Your task to perform on an android device: Open location settings Image 0: 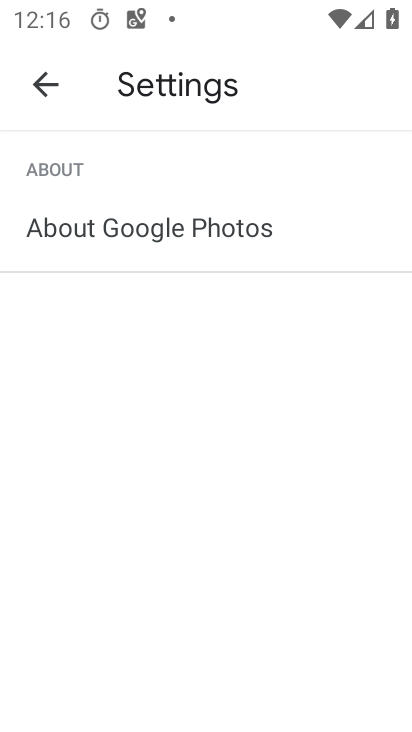
Step 0: press home button
Your task to perform on an android device: Open location settings Image 1: 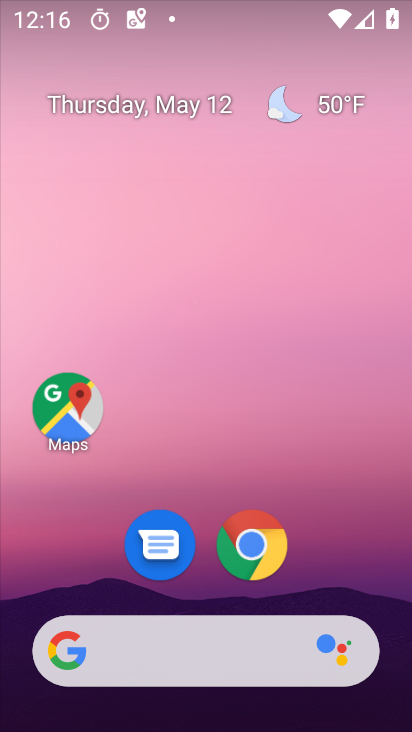
Step 1: drag from (216, 647) to (149, 106)
Your task to perform on an android device: Open location settings Image 2: 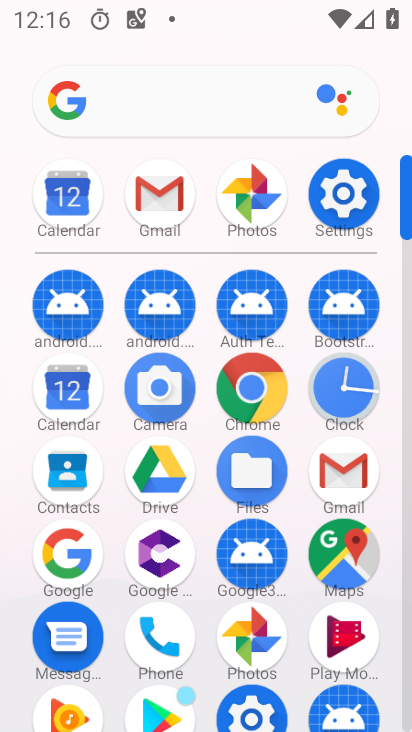
Step 2: click (322, 185)
Your task to perform on an android device: Open location settings Image 3: 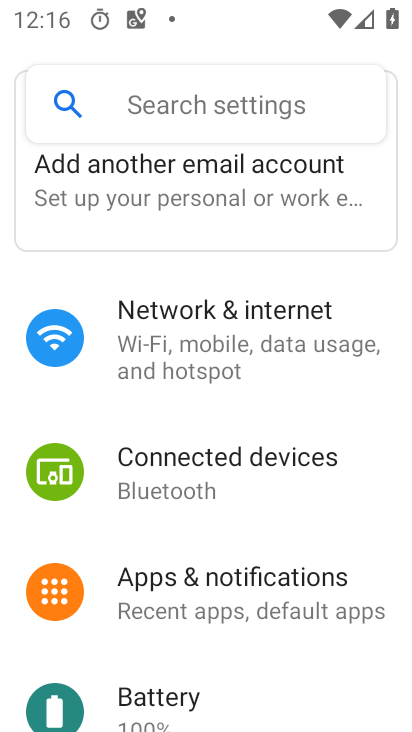
Step 3: drag from (250, 535) to (238, 32)
Your task to perform on an android device: Open location settings Image 4: 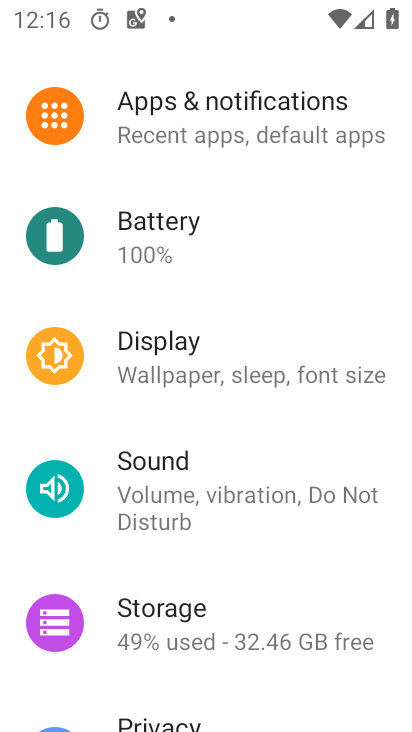
Step 4: drag from (190, 573) to (200, 68)
Your task to perform on an android device: Open location settings Image 5: 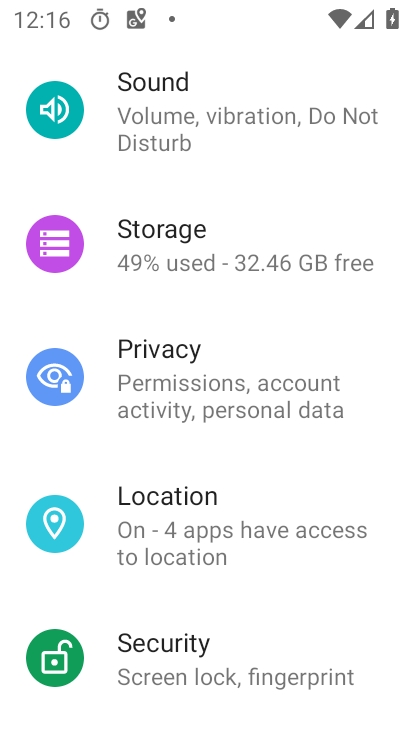
Step 5: click (179, 535)
Your task to perform on an android device: Open location settings Image 6: 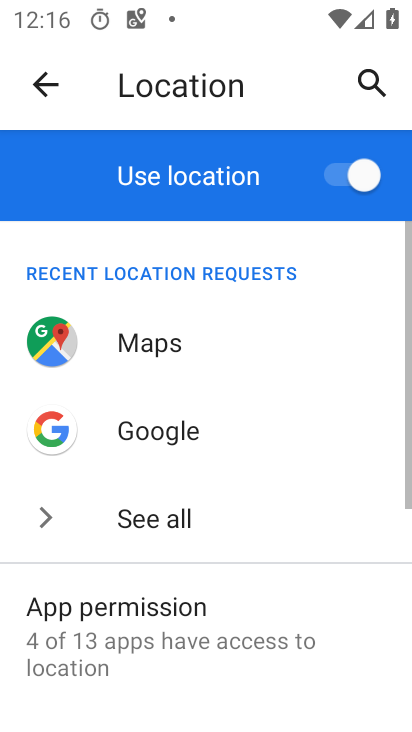
Step 6: drag from (178, 577) to (120, 75)
Your task to perform on an android device: Open location settings Image 7: 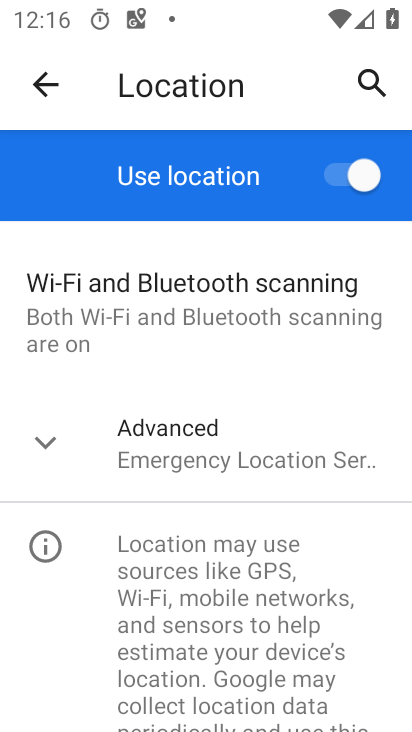
Step 7: click (150, 464)
Your task to perform on an android device: Open location settings Image 8: 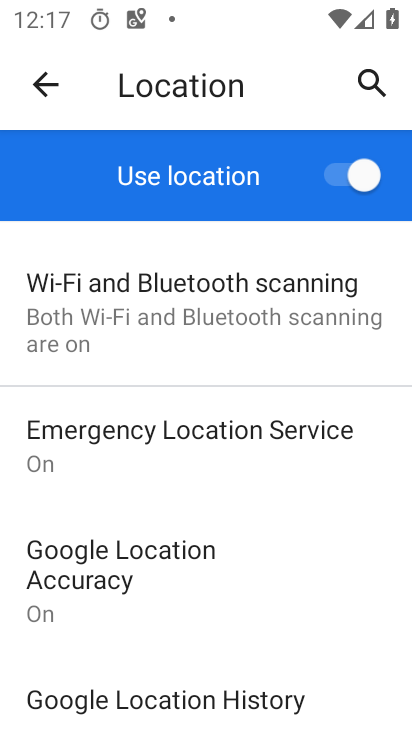
Step 8: task complete